Your task to perform on an android device: turn on priority inbox in the gmail app Image 0: 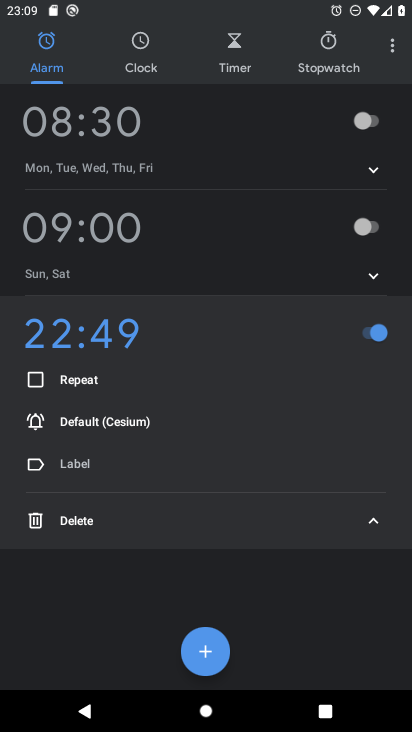
Step 0: press home button
Your task to perform on an android device: turn on priority inbox in the gmail app Image 1: 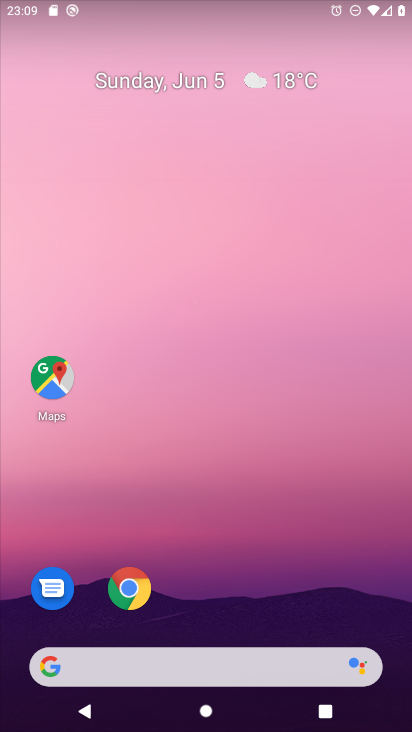
Step 1: drag from (339, 589) to (341, 242)
Your task to perform on an android device: turn on priority inbox in the gmail app Image 2: 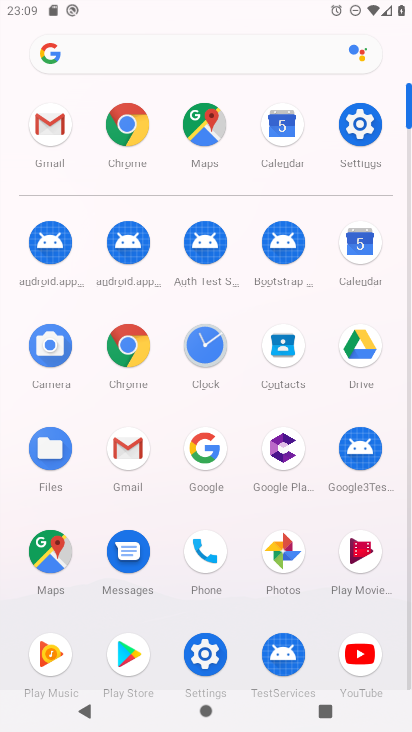
Step 2: click (55, 124)
Your task to perform on an android device: turn on priority inbox in the gmail app Image 3: 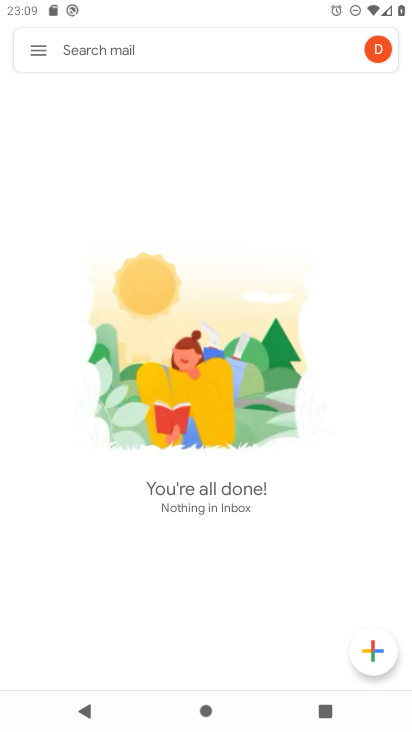
Step 3: click (41, 56)
Your task to perform on an android device: turn on priority inbox in the gmail app Image 4: 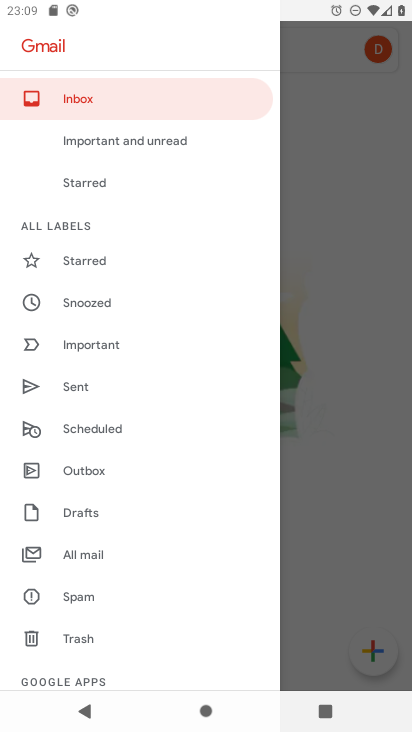
Step 4: drag from (193, 532) to (252, 404)
Your task to perform on an android device: turn on priority inbox in the gmail app Image 5: 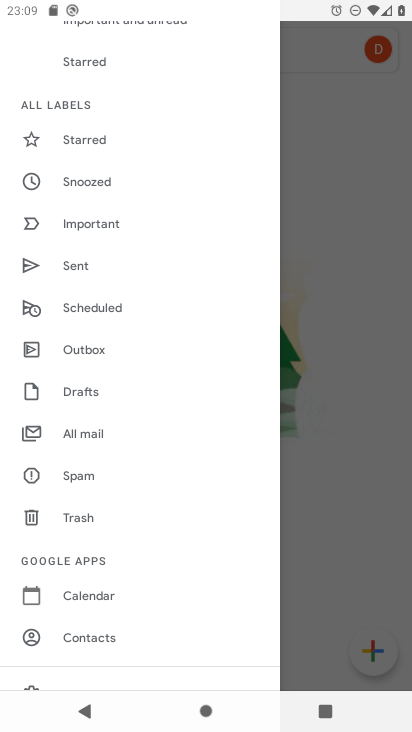
Step 5: drag from (173, 554) to (186, 401)
Your task to perform on an android device: turn on priority inbox in the gmail app Image 6: 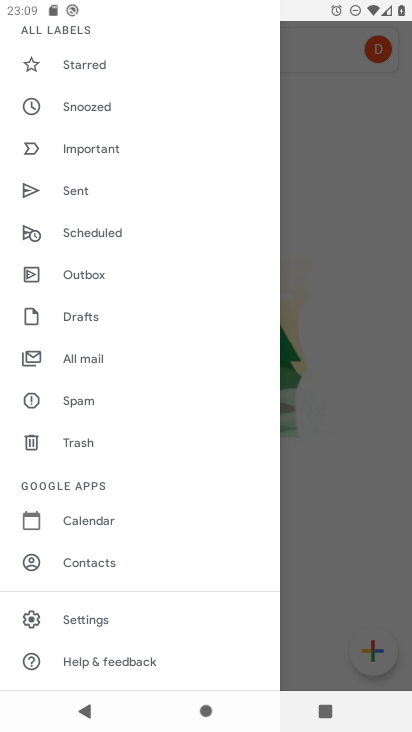
Step 6: click (149, 615)
Your task to perform on an android device: turn on priority inbox in the gmail app Image 7: 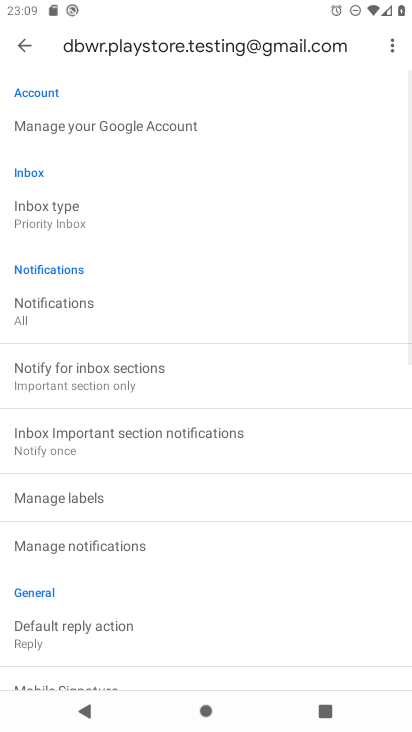
Step 7: task complete